Your task to perform on an android device: check battery use Image 0: 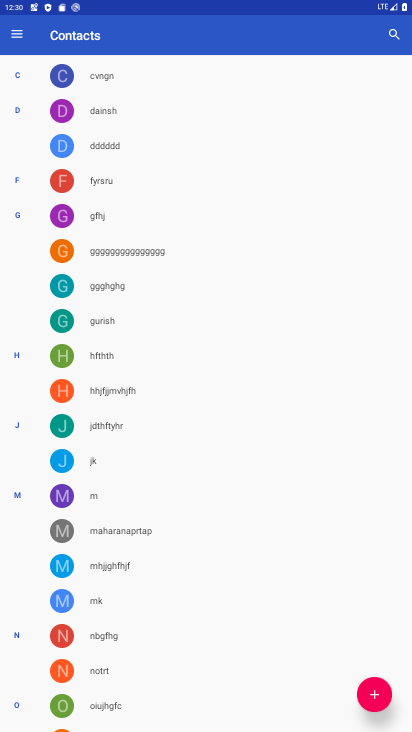
Step 0: drag from (153, 726) to (267, 289)
Your task to perform on an android device: check battery use Image 1: 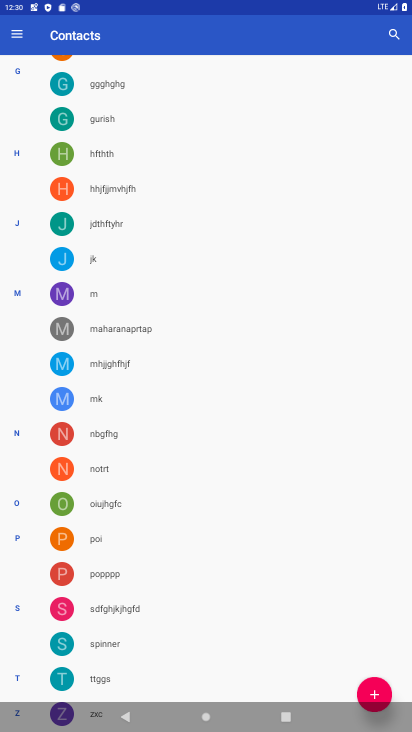
Step 1: click (214, 725)
Your task to perform on an android device: check battery use Image 2: 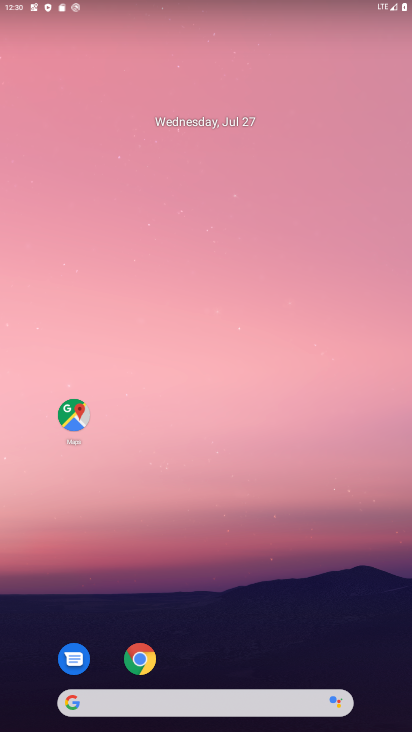
Step 2: drag from (182, 651) to (263, 290)
Your task to perform on an android device: check battery use Image 3: 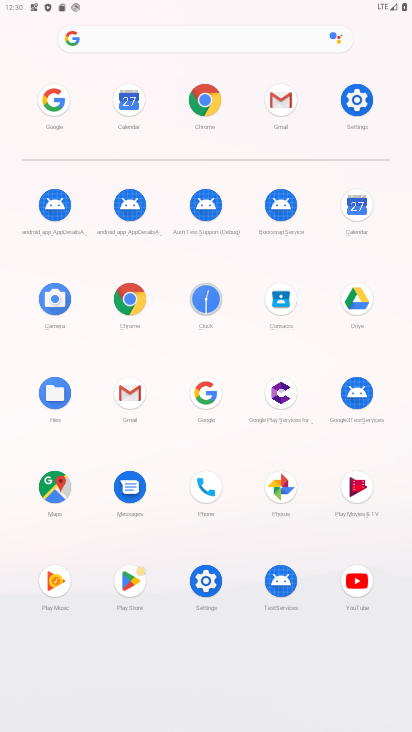
Step 3: click (209, 569)
Your task to perform on an android device: check battery use Image 4: 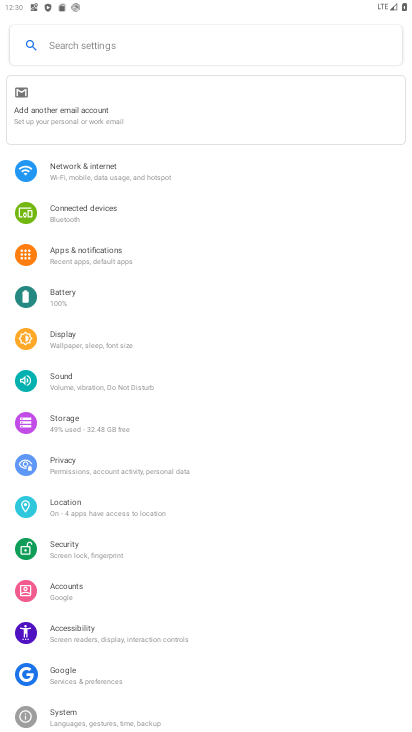
Step 4: click (56, 295)
Your task to perform on an android device: check battery use Image 5: 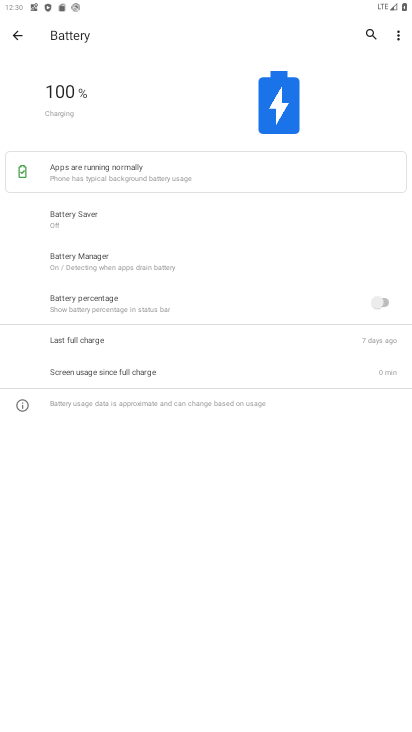
Step 5: click (97, 374)
Your task to perform on an android device: check battery use Image 6: 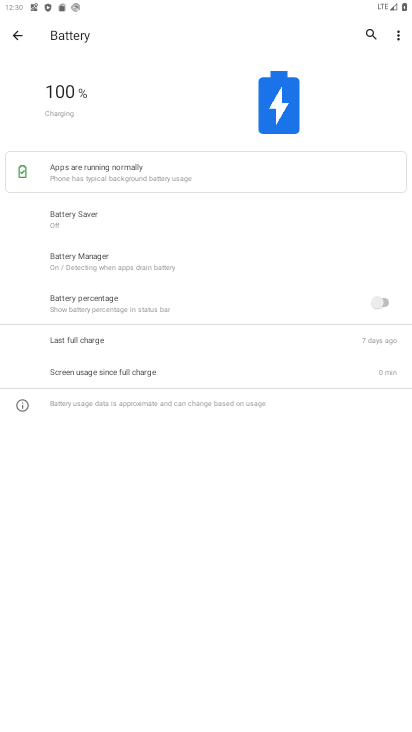
Step 6: click (108, 365)
Your task to perform on an android device: check battery use Image 7: 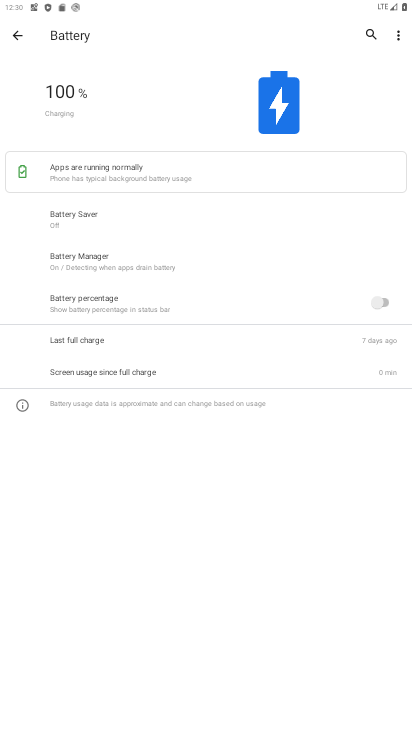
Step 7: click (105, 367)
Your task to perform on an android device: check battery use Image 8: 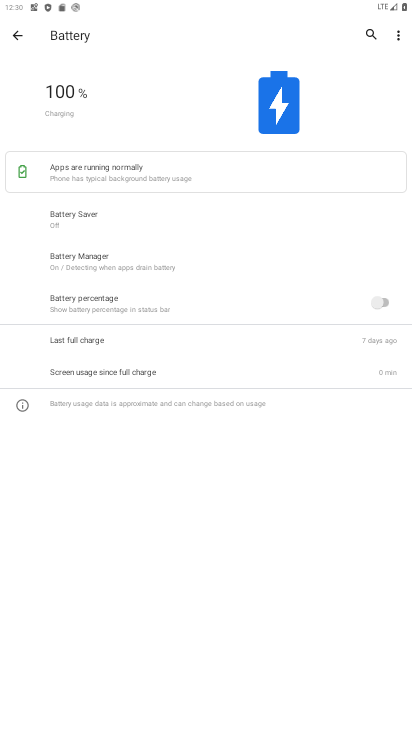
Step 8: click (81, 264)
Your task to perform on an android device: check battery use Image 9: 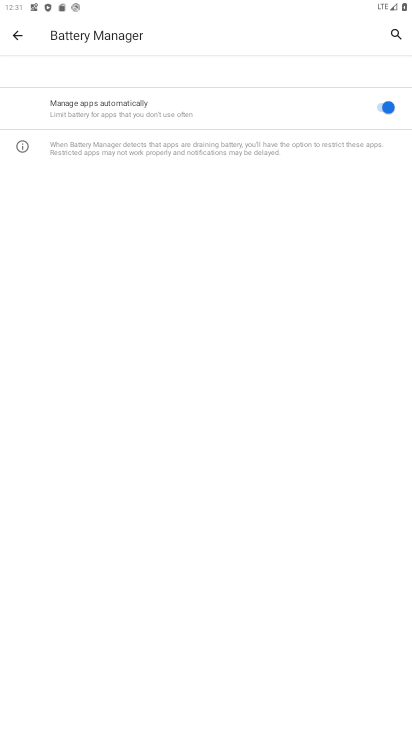
Step 9: click (21, 40)
Your task to perform on an android device: check battery use Image 10: 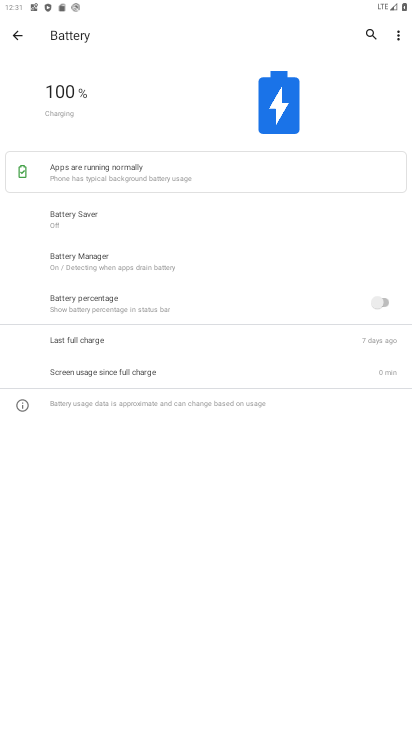
Step 10: click (397, 33)
Your task to perform on an android device: check battery use Image 11: 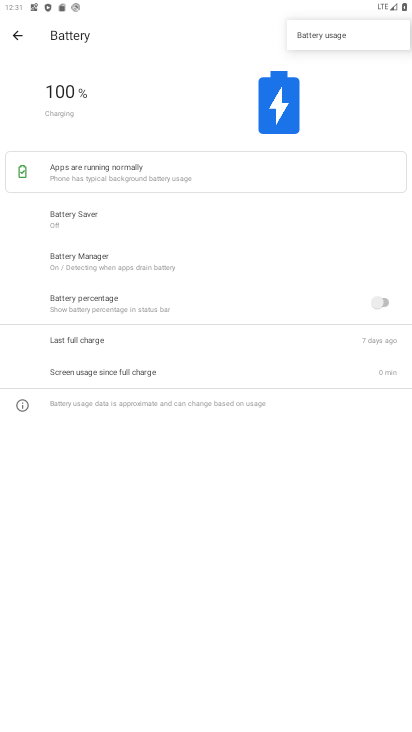
Step 11: click (337, 30)
Your task to perform on an android device: check battery use Image 12: 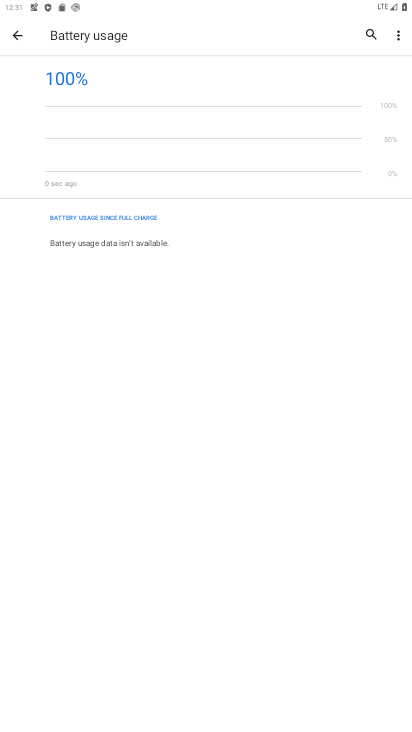
Step 12: task complete